Your task to perform on an android device: open app "Flipkart Online Shopping App" (install if not already installed), go to login, and select forgot password Image 0: 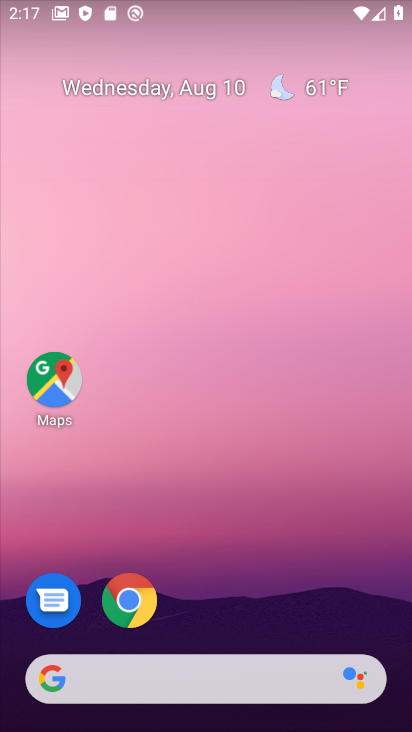
Step 0: drag from (246, 669) to (308, 63)
Your task to perform on an android device: open app "Flipkart Online Shopping App" (install if not already installed), go to login, and select forgot password Image 1: 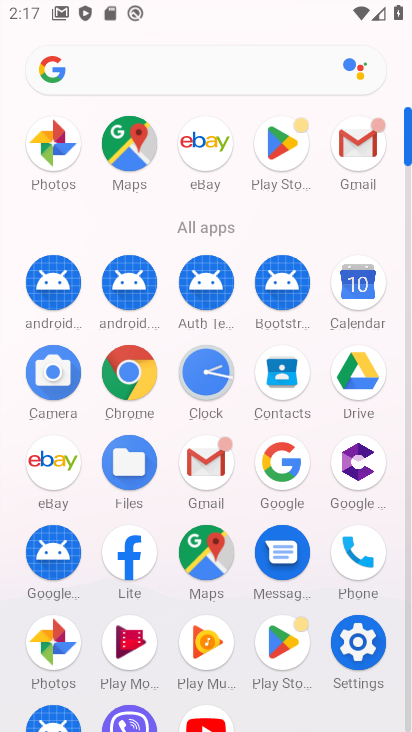
Step 1: click (274, 150)
Your task to perform on an android device: open app "Flipkart Online Shopping App" (install if not already installed), go to login, and select forgot password Image 2: 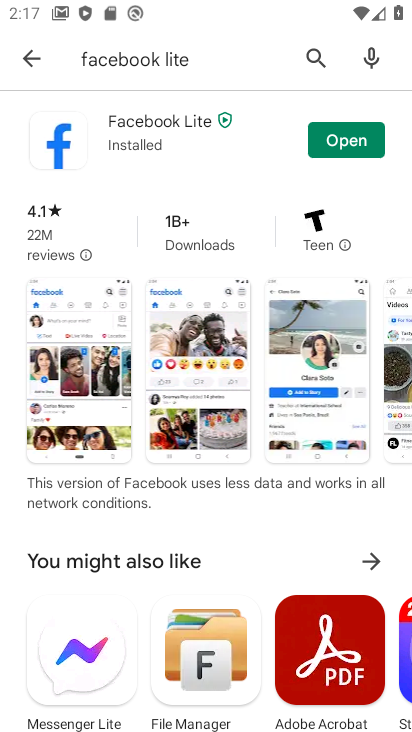
Step 2: click (305, 56)
Your task to perform on an android device: open app "Flipkart Online Shopping App" (install if not already installed), go to login, and select forgot password Image 3: 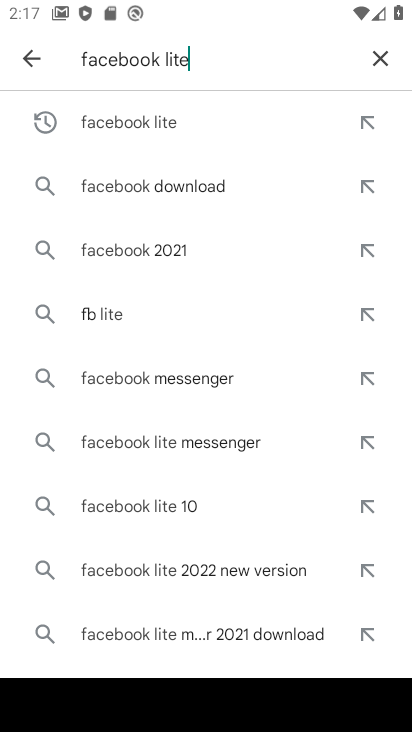
Step 3: click (378, 57)
Your task to perform on an android device: open app "Flipkart Online Shopping App" (install if not already installed), go to login, and select forgot password Image 4: 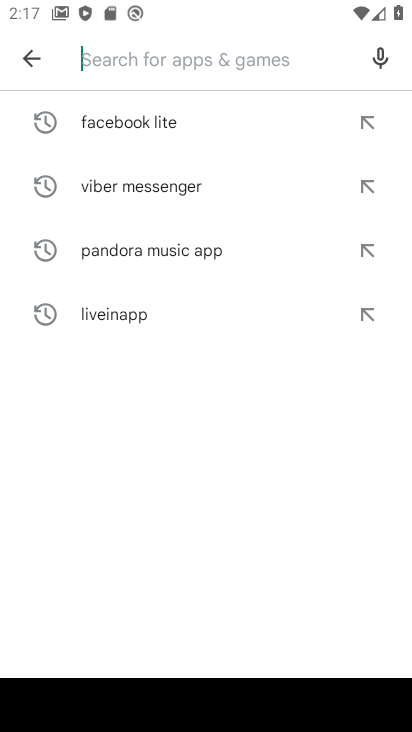
Step 4: click (149, 61)
Your task to perform on an android device: open app "Flipkart Online Shopping App" (install if not already installed), go to login, and select forgot password Image 5: 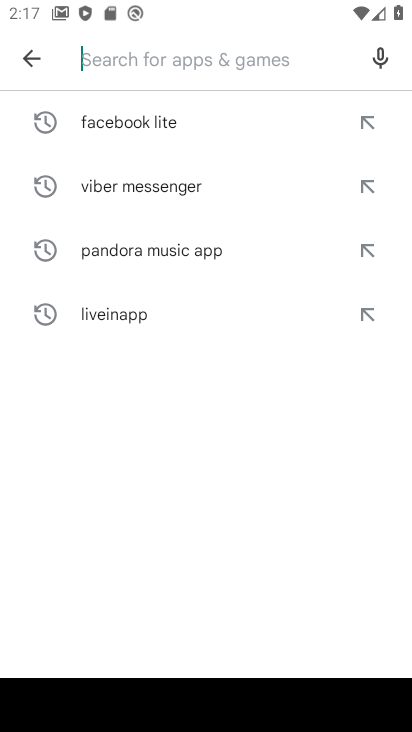
Step 5: click (133, 58)
Your task to perform on an android device: open app "Flipkart Online Shopping App" (install if not already installed), go to login, and select forgot password Image 6: 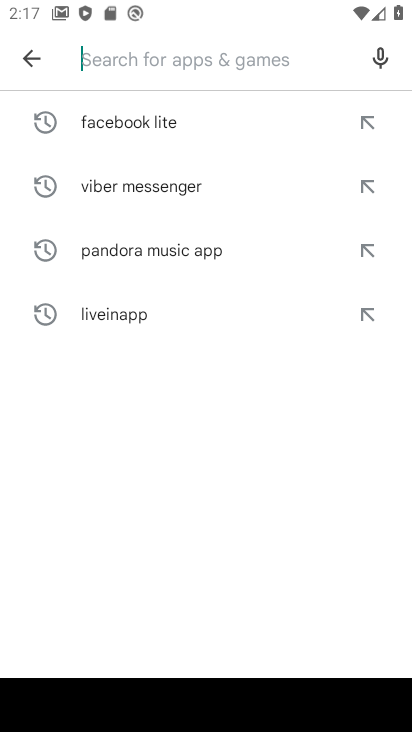
Step 6: type "Flipkart Online Shopping App"
Your task to perform on an android device: open app "Flipkart Online Shopping App" (install if not already installed), go to login, and select forgot password Image 7: 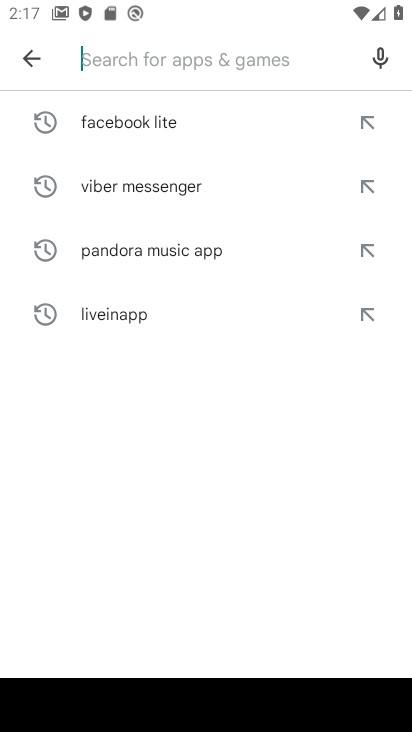
Step 7: click (158, 439)
Your task to perform on an android device: open app "Flipkart Online Shopping App" (install if not already installed), go to login, and select forgot password Image 8: 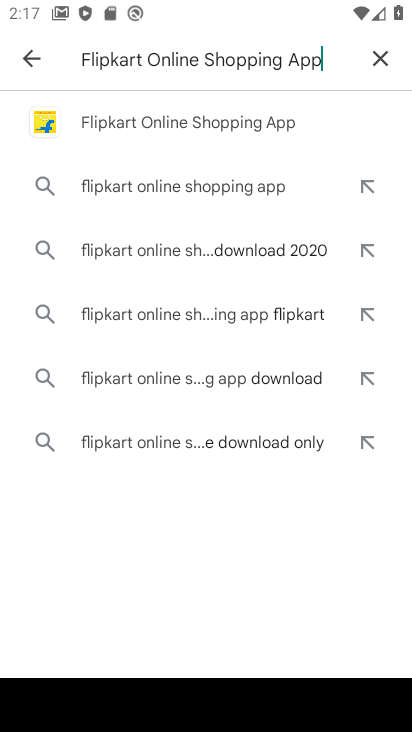
Step 8: click (155, 112)
Your task to perform on an android device: open app "Flipkart Online Shopping App" (install if not already installed), go to login, and select forgot password Image 9: 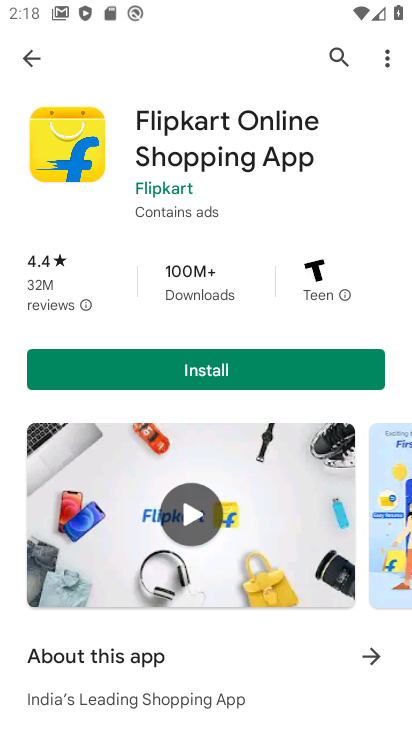
Step 9: click (220, 371)
Your task to perform on an android device: open app "Flipkart Online Shopping App" (install if not already installed), go to login, and select forgot password Image 10: 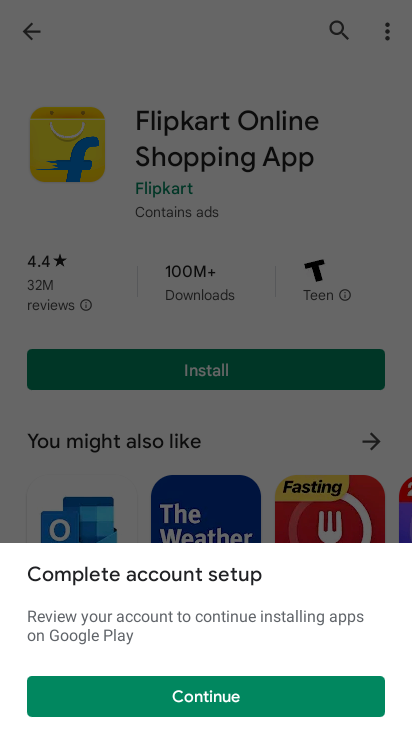
Step 10: click (152, 696)
Your task to perform on an android device: open app "Flipkart Online Shopping App" (install if not already installed), go to login, and select forgot password Image 11: 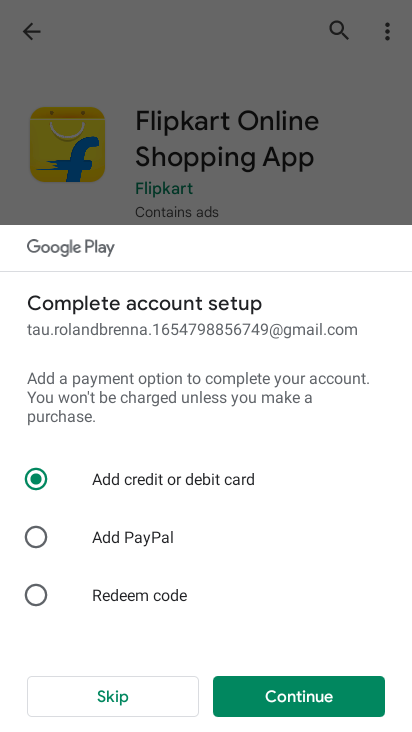
Step 11: click (139, 692)
Your task to perform on an android device: open app "Flipkart Online Shopping App" (install if not already installed), go to login, and select forgot password Image 12: 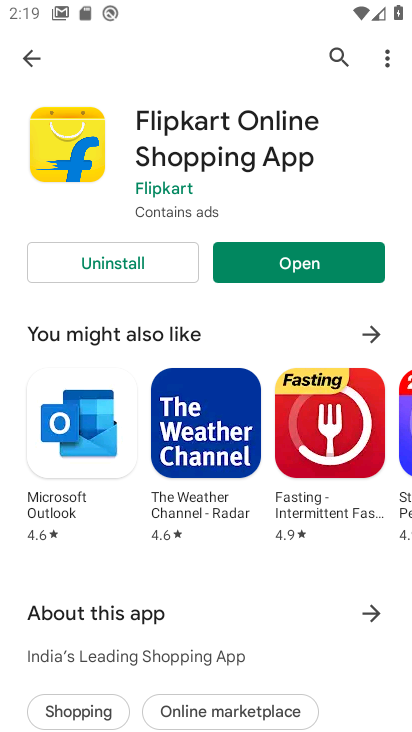
Step 12: click (271, 271)
Your task to perform on an android device: open app "Flipkart Online Shopping App" (install if not already installed), go to login, and select forgot password Image 13: 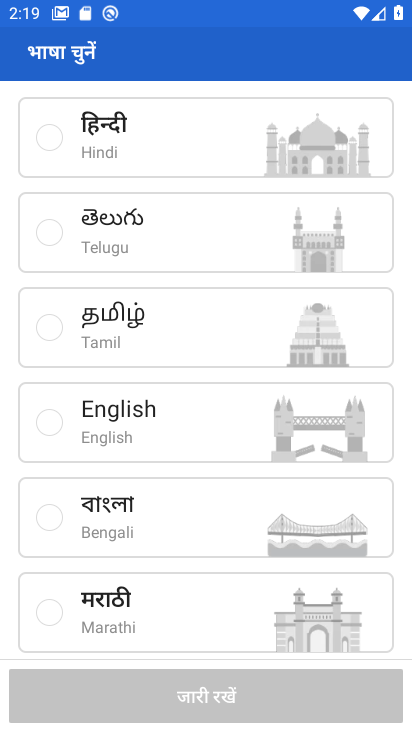
Step 13: click (34, 128)
Your task to perform on an android device: open app "Flipkart Online Shopping App" (install if not already installed), go to login, and select forgot password Image 14: 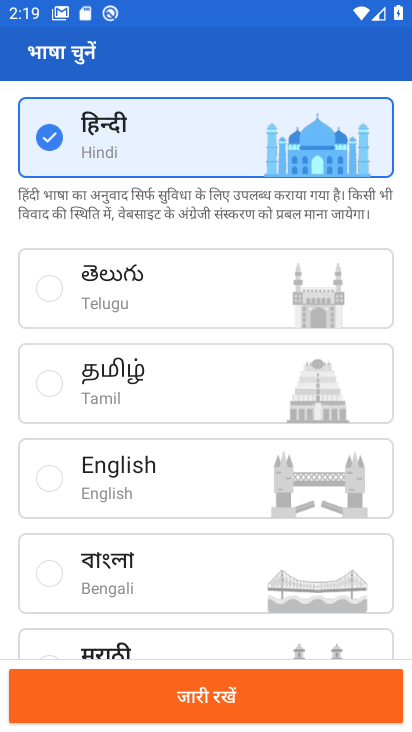
Step 14: click (60, 324)
Your task to perform on an android device: open app "Flipkart Online Shopping App" (install if not already installed), go to login, and select forgot password Image 15: 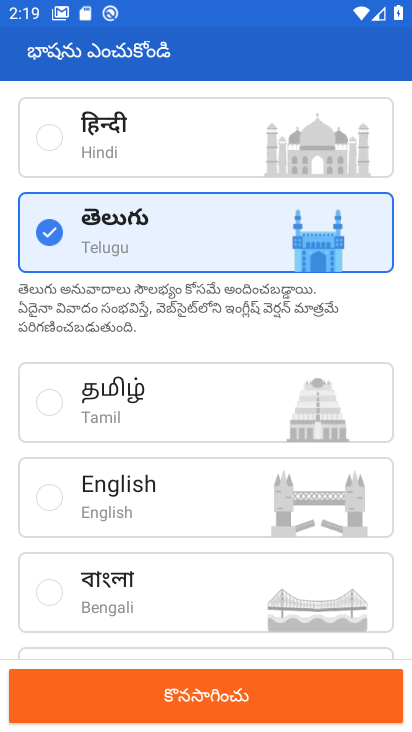
Step 15: click (41, 495)
Your task to perform on an android device: open app "Flipkart Online Shopping App" (install if not already installed), go to login, and select forgot password Image 16: 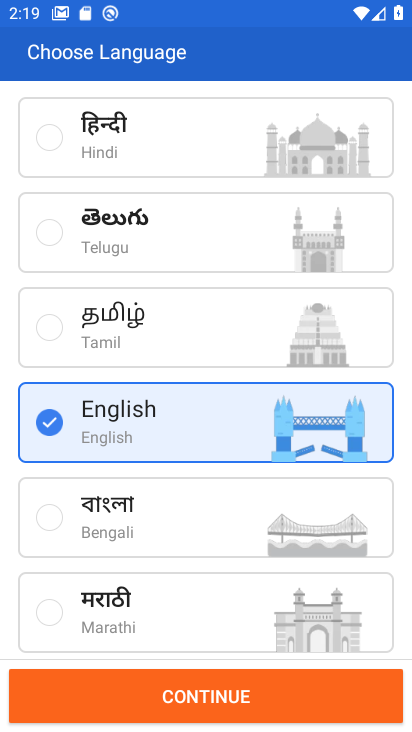
Step 16: click (215, 700)
Your task to perform on an android device: open app "Flipkart Online Shopping App" (install if not already installed), go to login, and select forgot password Image 17: 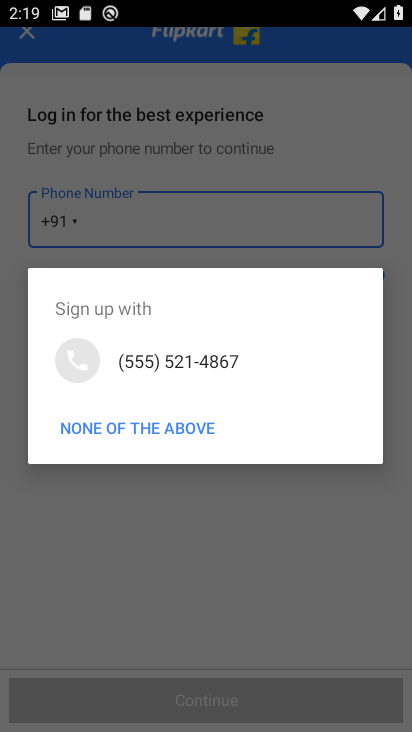
Step 17: task complete